Your task to perform on an android device: turn on airplane mode Image 0: 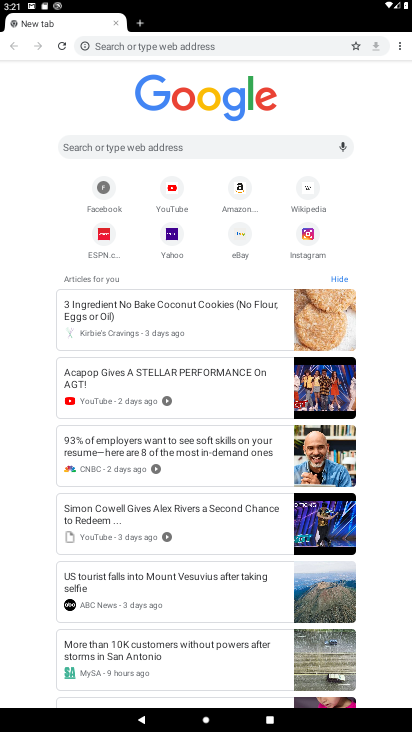
Step 0: press home button
Your task to perform on an android device: turn on airplane mode Image 1: 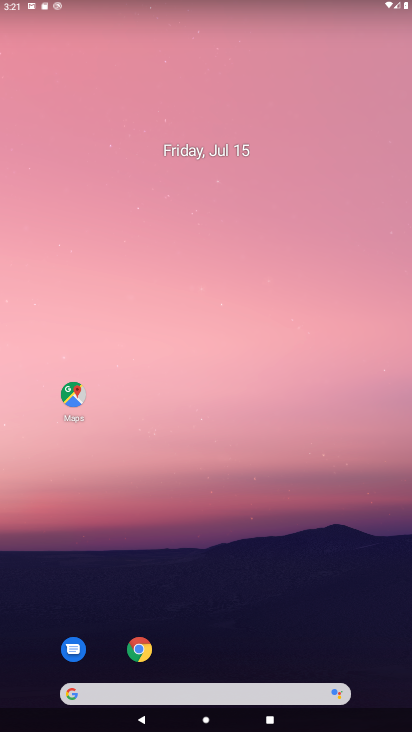
Step 1: drag from (338, 631) to (338, 89)
Your task to perform on an android device: turn on airplane mode Image 2: 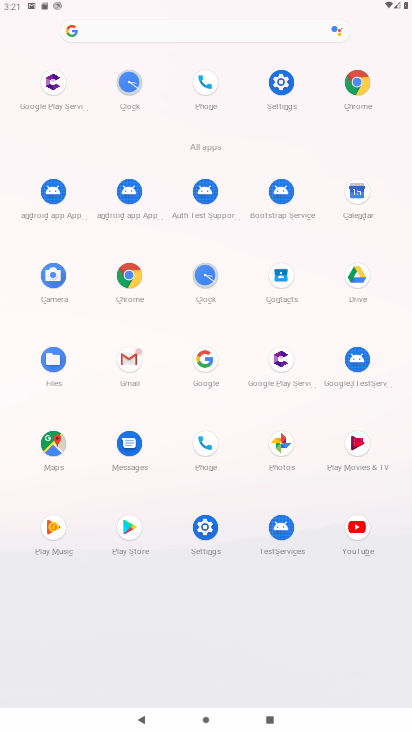
Step 2: click (203, 524)
Your task to perform on an android device: turn on airplane mode Image 3: 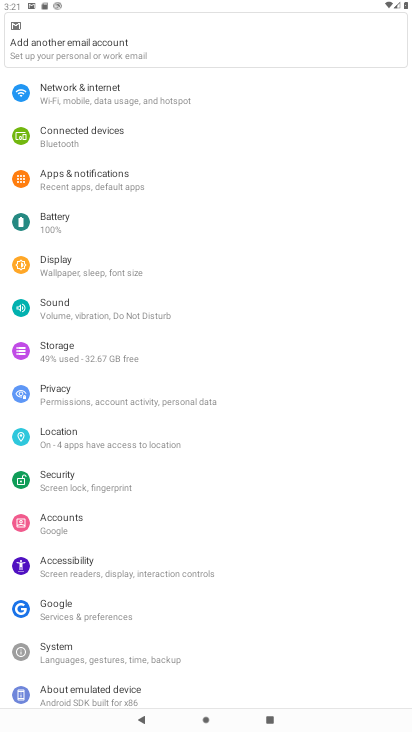
Step 3: click (77, 98)
Your task to perform on an android device: turn on airplane mode Image 4: 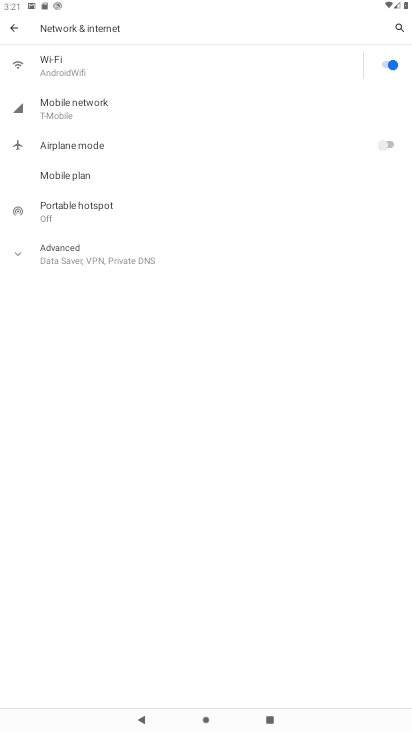
Step 4: click (388, 141)
Your task to perform on an android device: turn on airplane mode Image 5: 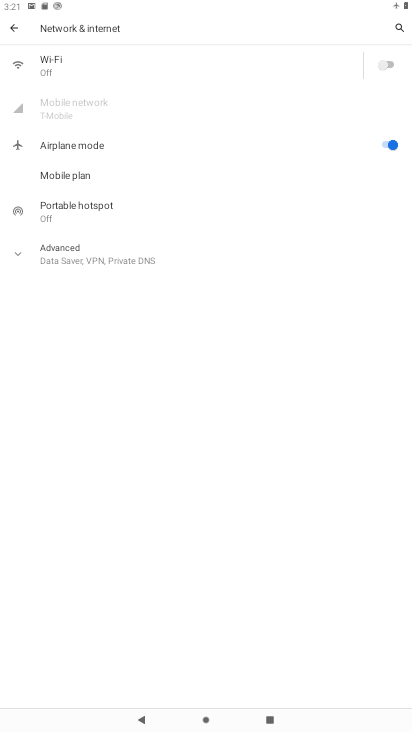
Step 5: task complete